Your task to perform on an android device: Turn off the flashlight Image 0: 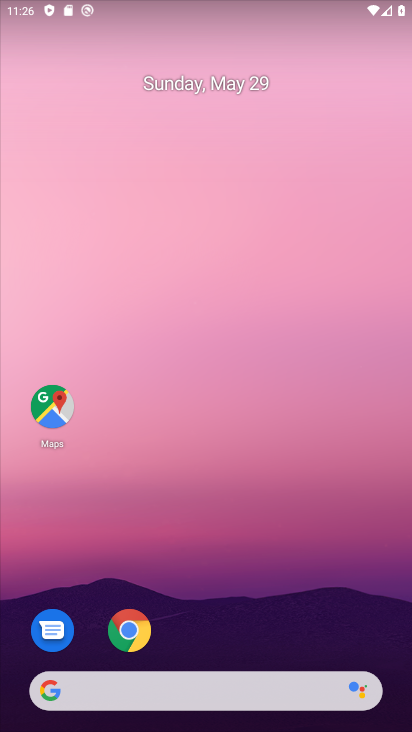
Step 0: drag from (166, 7) to (174, 534)
Your task to perform on an android device: Turn off the flashlight Image 1: 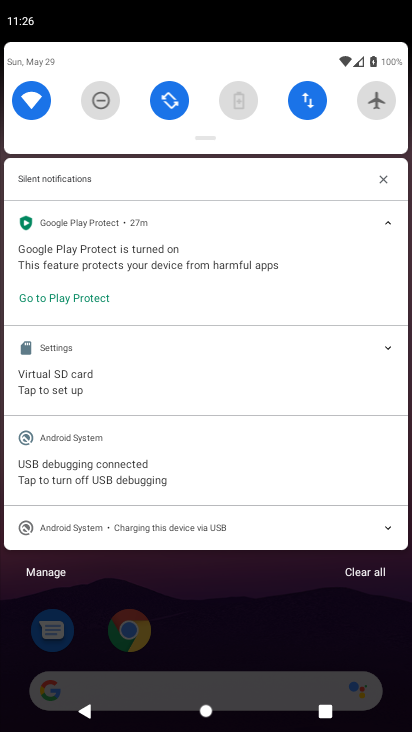
Step 1: drag from (189, 140) to (172, 626)
Your task to perform on an android device: Turn off the flashlight Image 2: 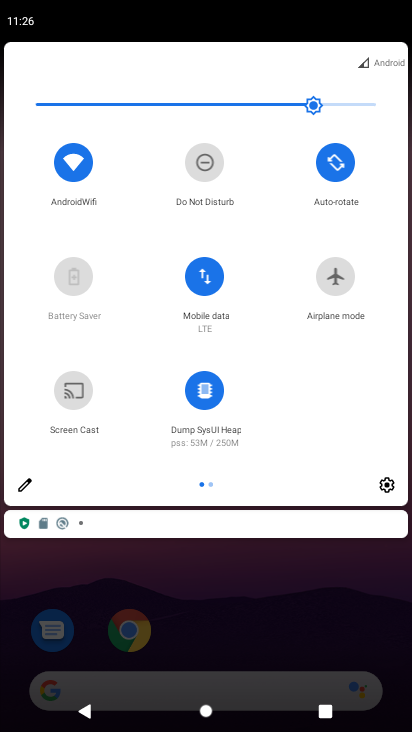
Step 2: click (28, 487)
Your task to perform on an android device: Turn off the flashlight Image 3: 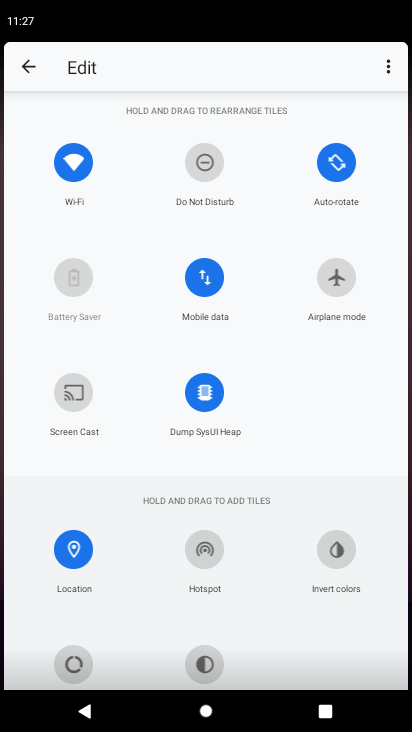
Step 3: task complete